Your task to perform on an android device: Go to Wikipedia Image 0: 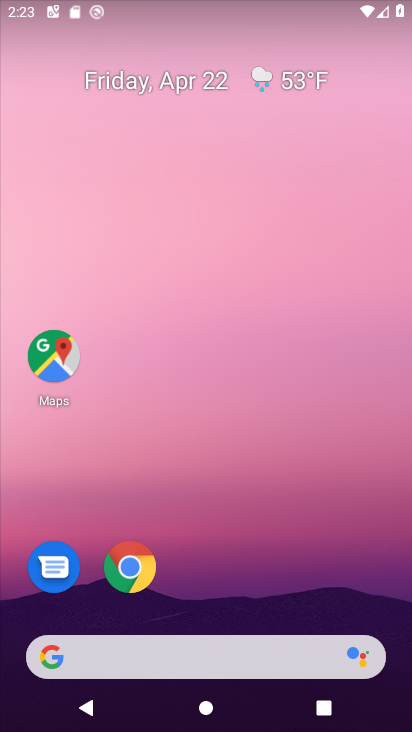
Step 0: click (132, 568)
Your task to perform on an android device: Go to Wikipedia Image 1: 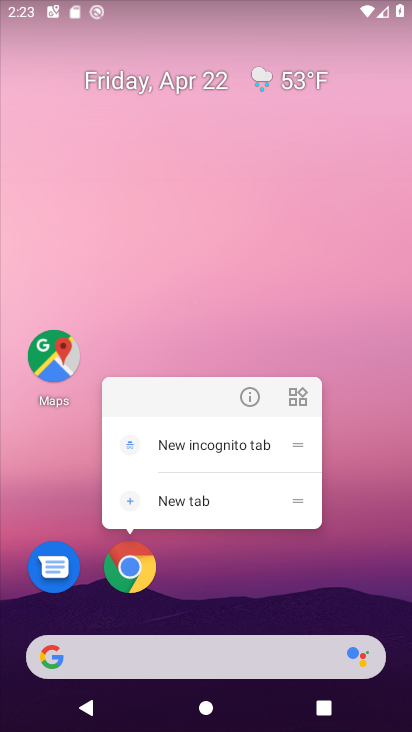
Step 1: click (132, 564)
Your task to perform on an android device: Go to Wikipedia Image 2: 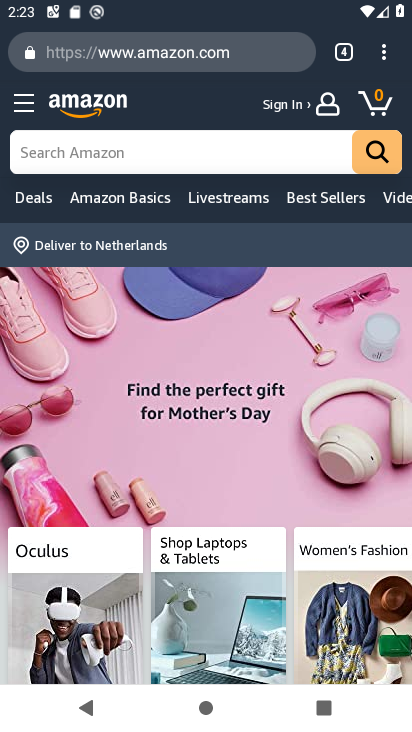
Step 2: click (381, 51)
Your task to perform on an android device: Go to Wikipedia Image 3: 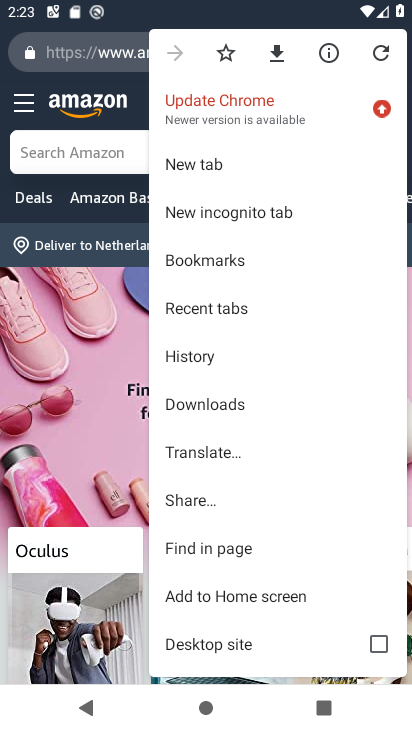
Step 3: click (283, 155)
Your task to perform on an android device: Go to Wikipedia Image 4: 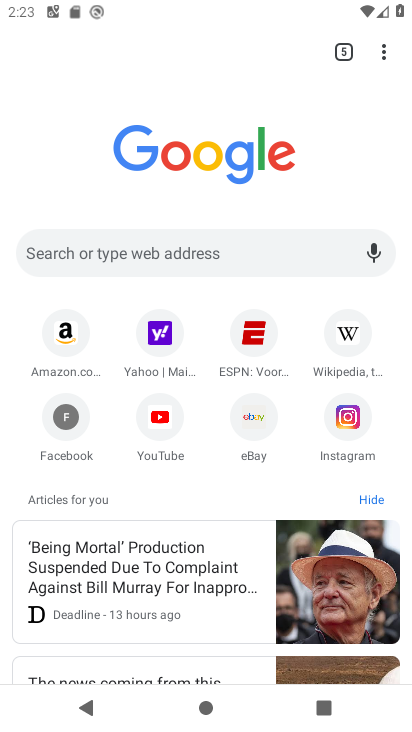
Step 4: click (356, 324)
Your task to perform on an android device: Go to Wikipedia Image 5: 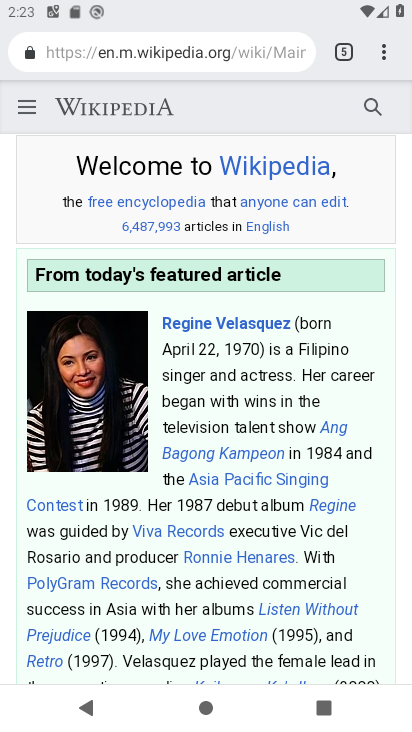
Step 5: task complete